Your task to perform on an android device: Show me productivity apps on the Play Store Image 0: 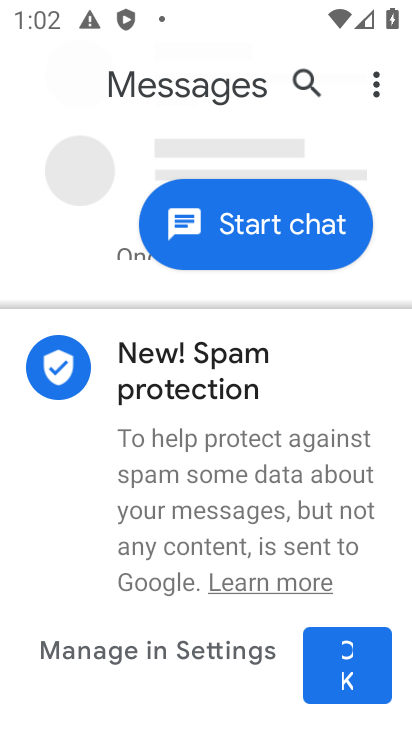
Step 0: press home button
Your task to perform on an android device: Show me productivity apps on the Play Store Image 1: 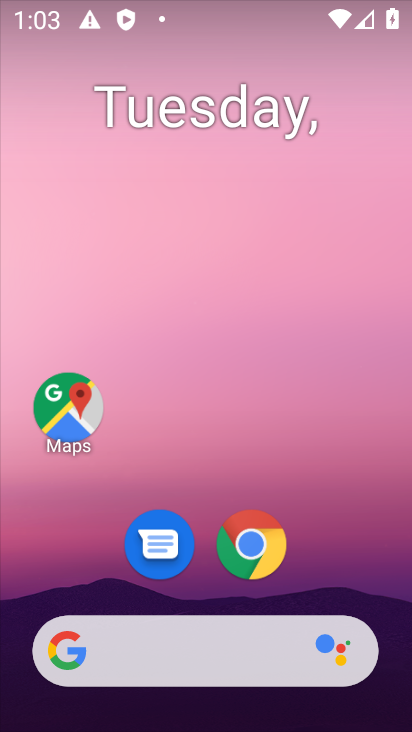
Step 1: drag from (343, 523) to (341, 32)
Your task to perform on an android device: Show me productivity apps on the Play Store Image 2: 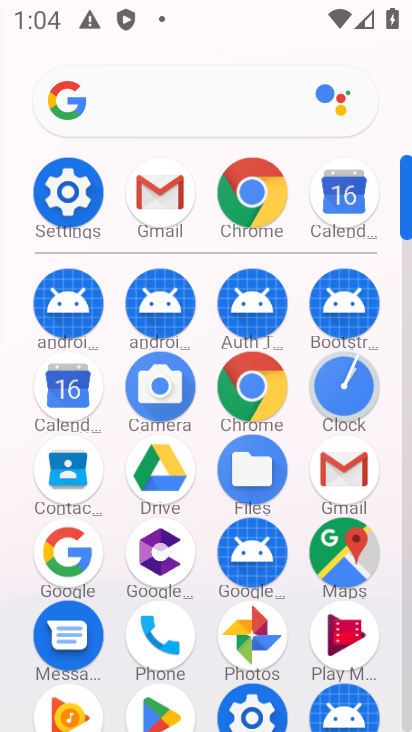
Step 2: click (166, 704)
Your task to perform on an android device: Show me productivity apps on the Play Store Image 3: 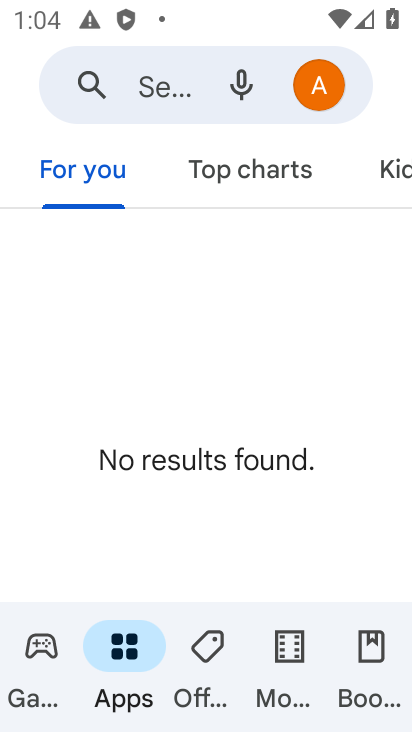
Step 3: task complete